Your task to perform on an android device: open sync settings in chrome Image 0: 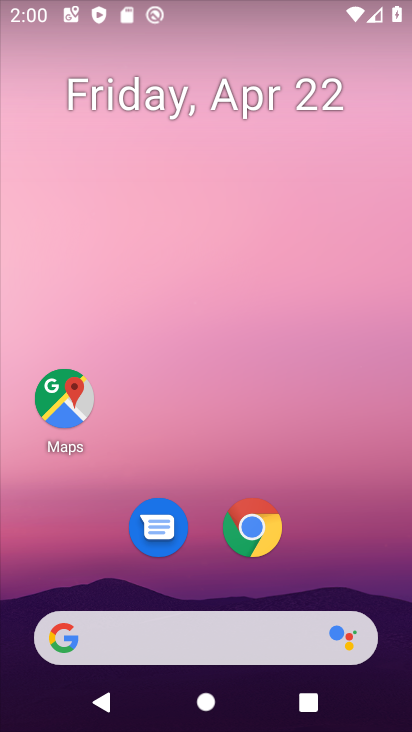
Step 0: drag from (345, 544) to (369, 49)
Your task to perform on an android device: open sync settings in chrome Image 1: 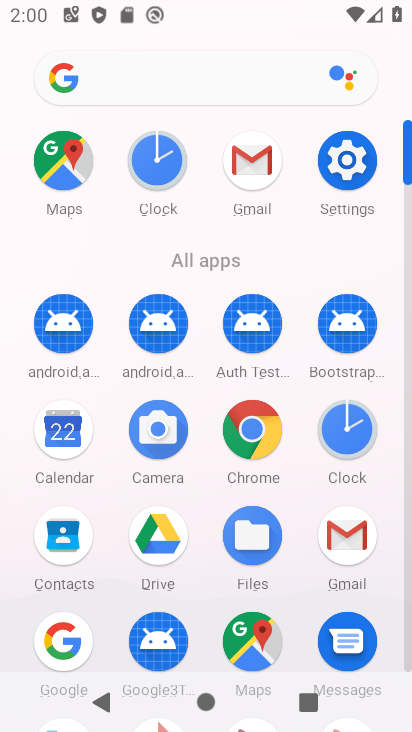
Step 1: drag from (302, 280) to (326, 73)
Your task to perform on an android device: open sync settings in chrome Image 2: 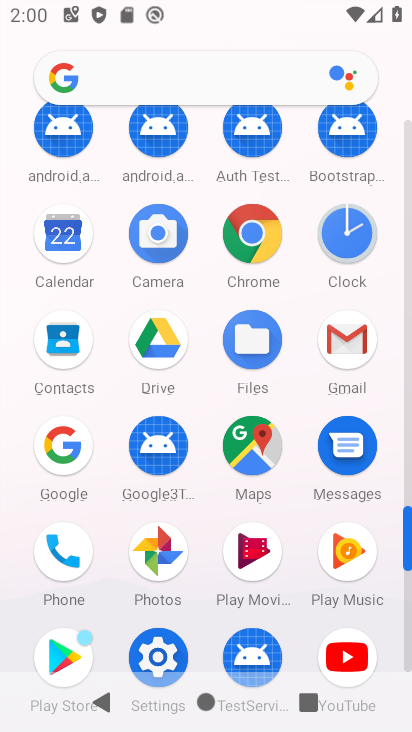
Step 2: click (161, 646)
Your task to perform on an android device: open sync settings in chrome Image 3: 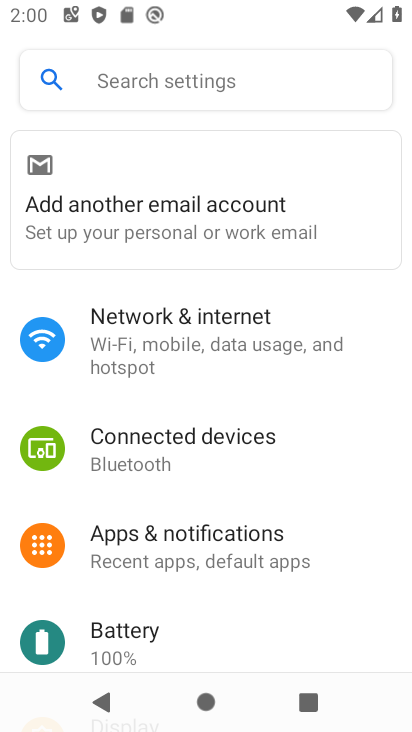
Step 3: press home button
Your task to perform on an android device: open sync settings in chrome Image 4: 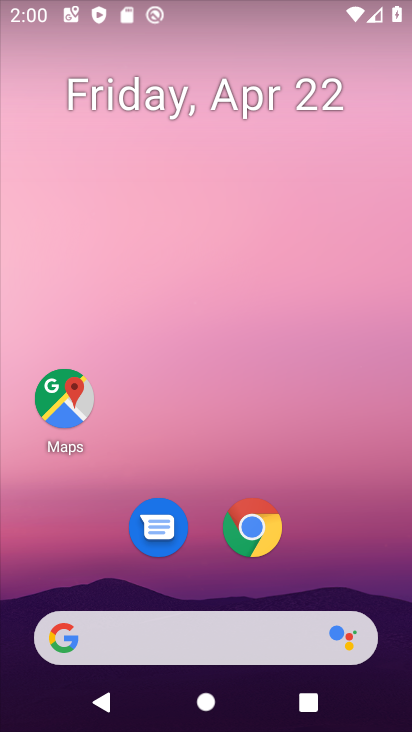
Step 4: drag from (345, 545) to (367, 38)
Your task to perform on an android device: open sync settings in chrome Image 5: 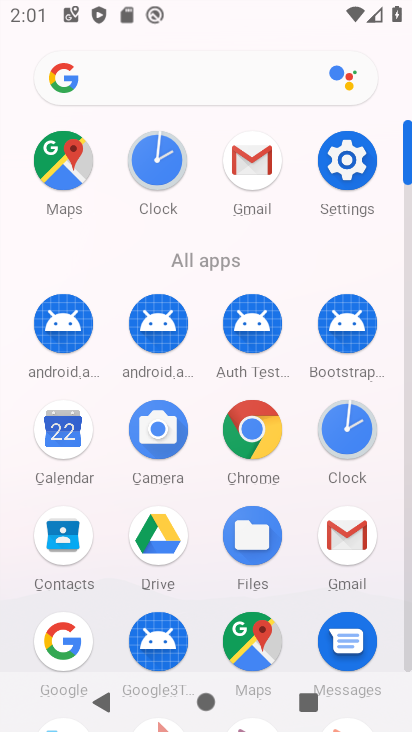
Step 5: click (249, 429)
Your task to perform on an android device: open sync settings in chrome Image 6: 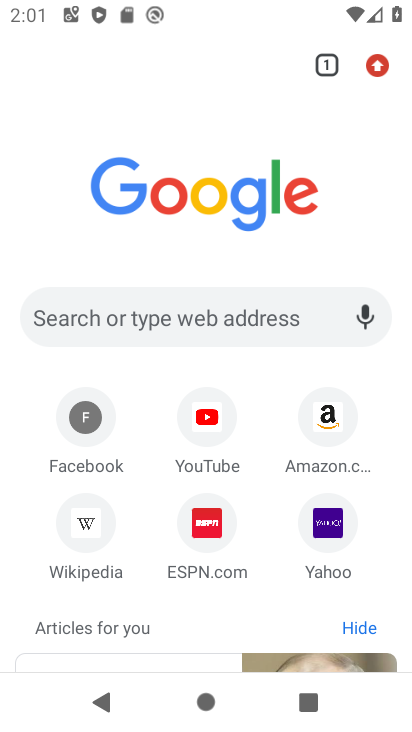
Step 6: drag from (378, 67) to (149, 566)
Your task to perform on an android device: open sync settings in chrome Image 7: 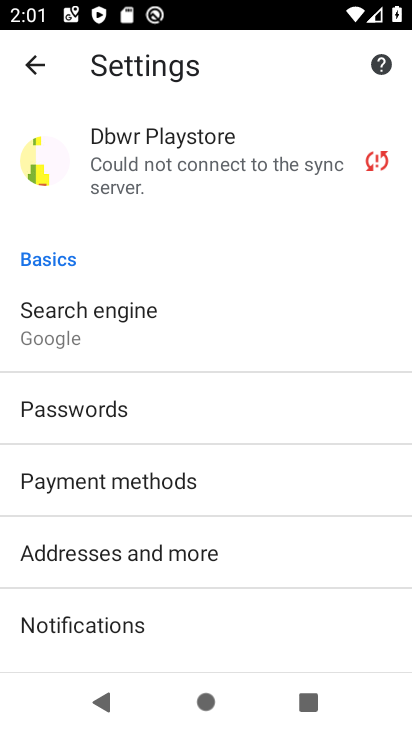
Step 7: click (67, 151)
Your task to perform on an android device: open sync settings in chrome Image 8: 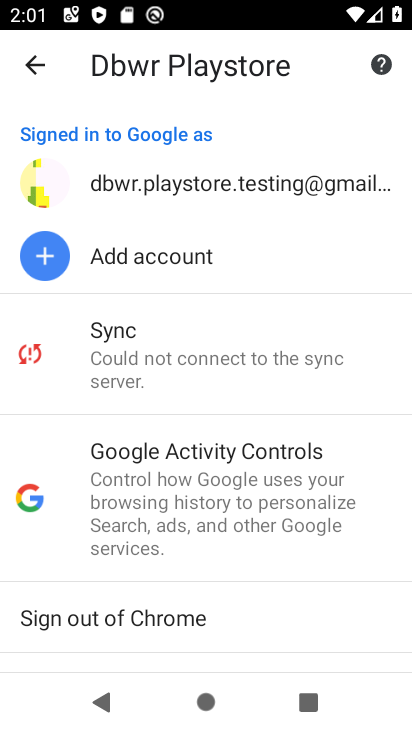
Step 8: click (125, 347)
Your task to perform on an android device: open sync settings in chrome Image 9: 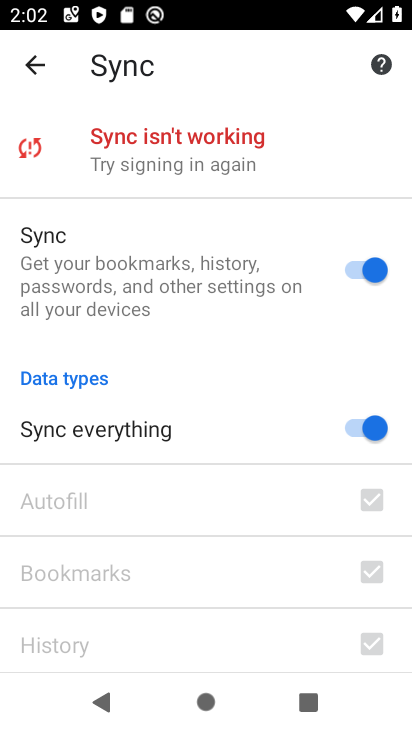
Step 9: task complete